Your task to perform on an android device: toggle notification dots Image 0: 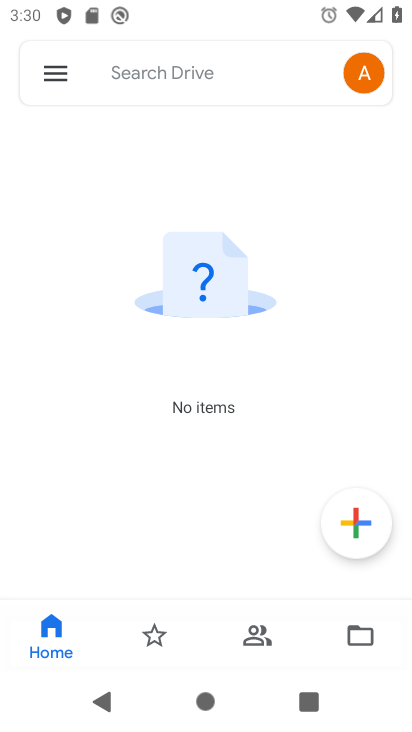
Step 0: press home button
Your task to perform on an android device: toggle notification dots Image 1: 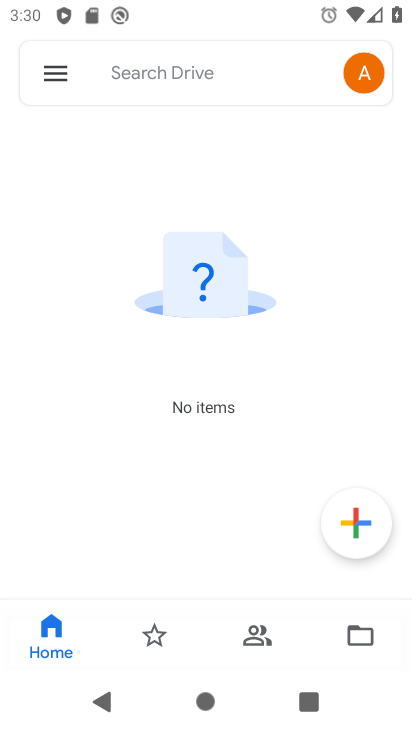
Step 1: press home button
Your task to perform on an android device: toggle notification dots Image 2: 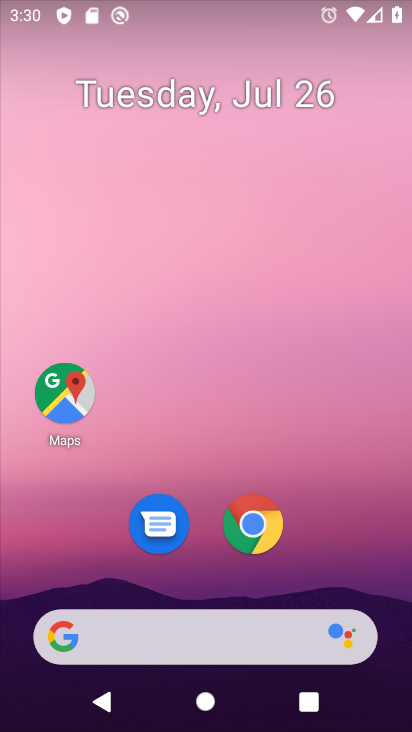
Step 2: drag from (310, 528) to (263, 99)
Your task to perform on an android device: toggle notification dots Image 3: 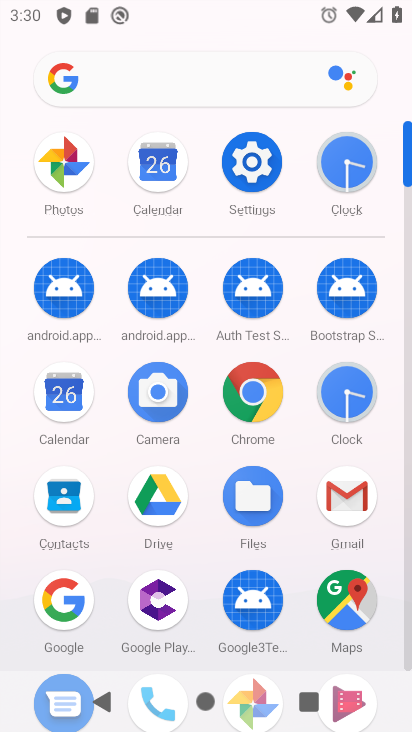
Step 3: click (260, 170)
Your task to perform on an android device: toggle notification dots Image 4: 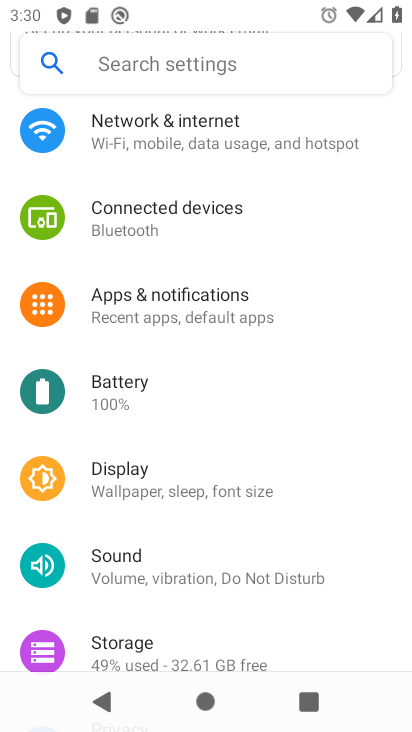
Step 4: click (230, 296)
Your task to perform on an android device: toggle notification dots Image 5: 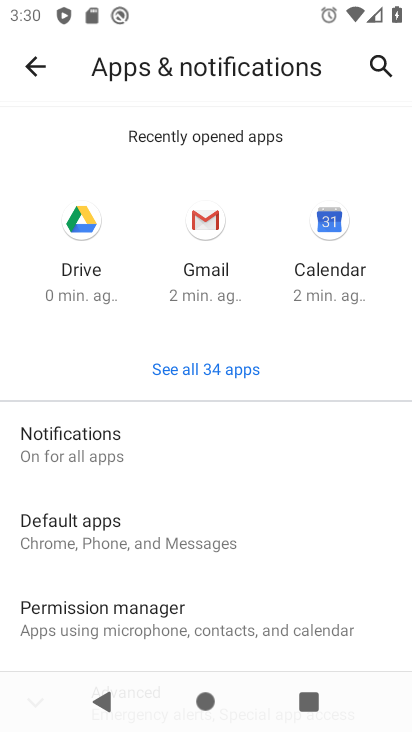
Step 5: click (105, 445)
Your task to perform on an android device: toggle notification dots Image 6: 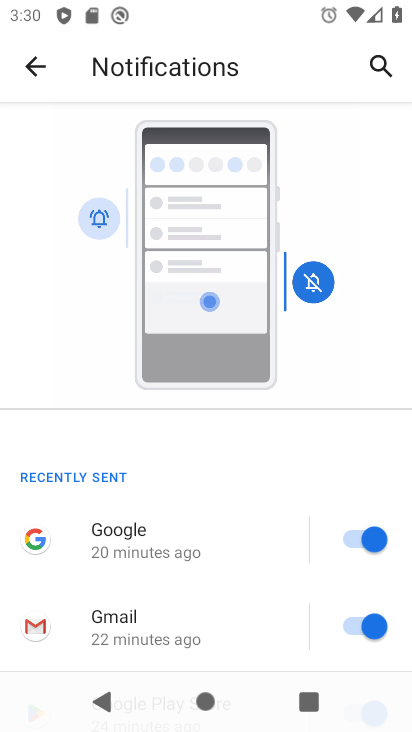
Step 6: drag from (268, 554) to (203, 195)
Your task to perform on an android device: toggle notification dots Image 7: 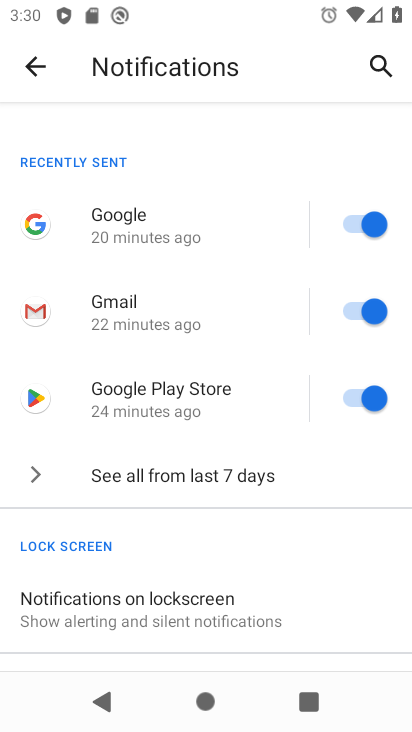
Step 7: drag from (273, 562) to (231, 282)
Your task to perform on an android device: toggle notification dots Image 8: 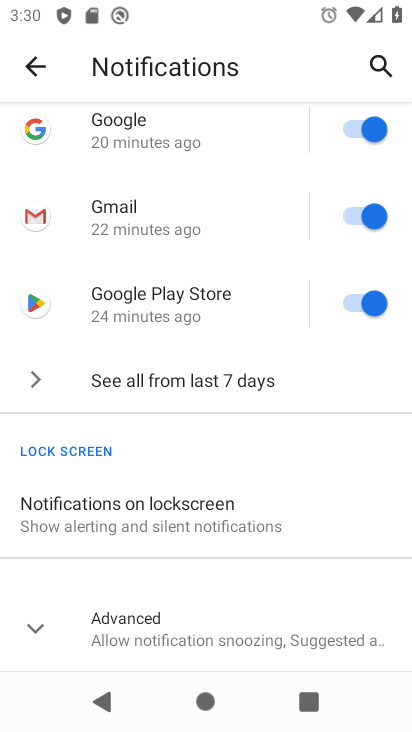
Step 8: click (27, 628)
Your task to perform on an android device: toggle notification dots Image 9: 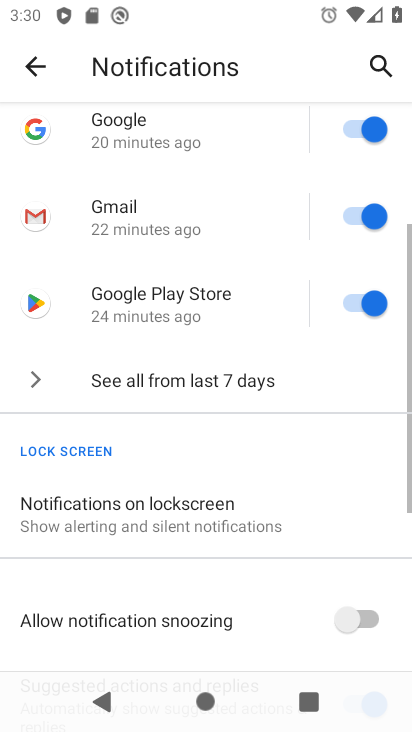
Step 9: drag from (221, 552) to (163, 224)
Your task to perform on an android device: toggle notification dots Image 10: 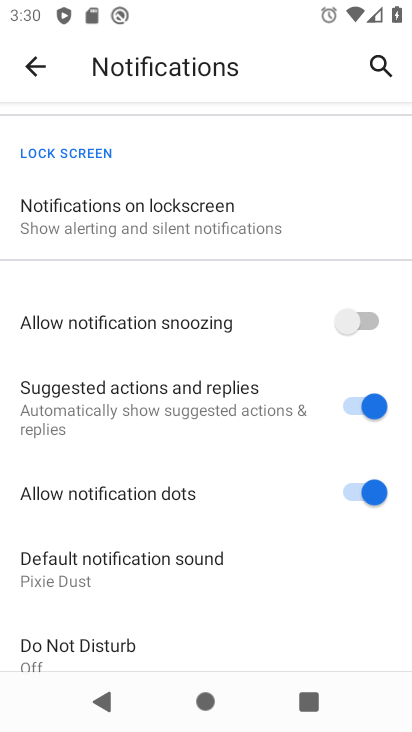
Step 10: click (369, 490)
Your task to perform on an android device: toggle notification dots Image 11: 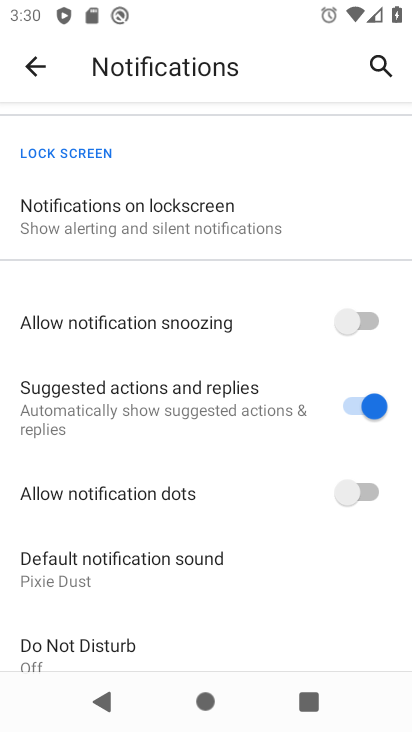
Step 11: task complete